Your task to perform on an android device: Open network settings Image 0: 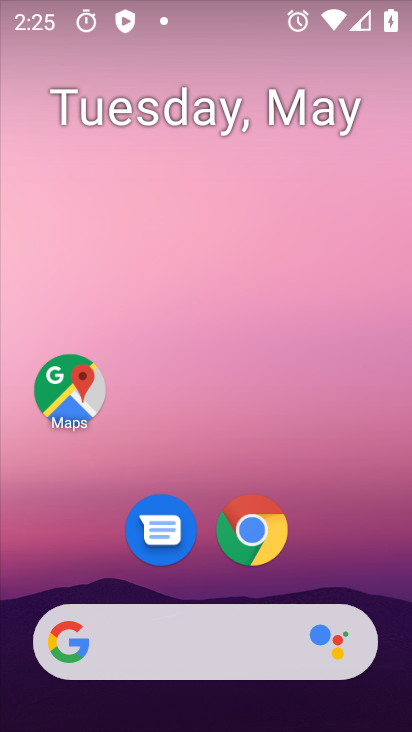
Step 0: drag from (218, 583) to (214, 9)
Your task to perform on an android device: Open network settings Image 1: 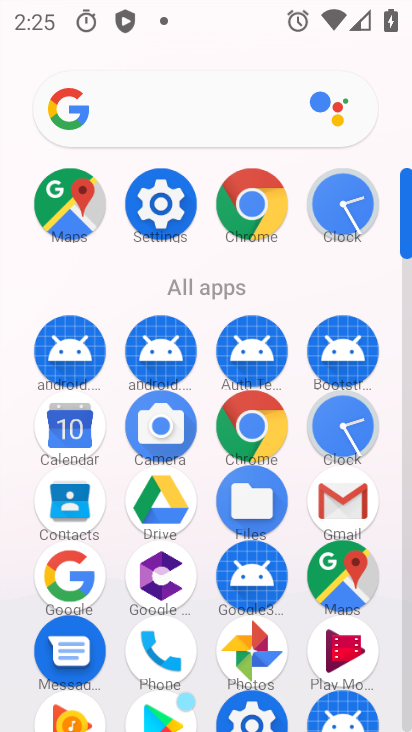
Step 1: click (150, 217)
Your task to perform on an android device: Open network settings Image 2: 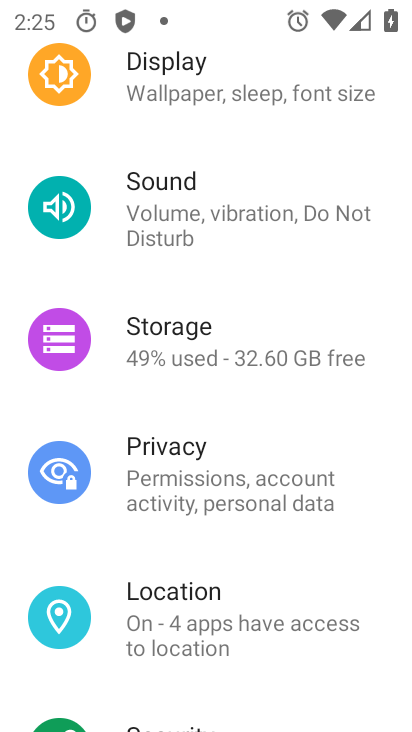
Step 2: drag from (208, 128) to (174, 668)
Your task to perform on an android device: Open network settings Image 3: 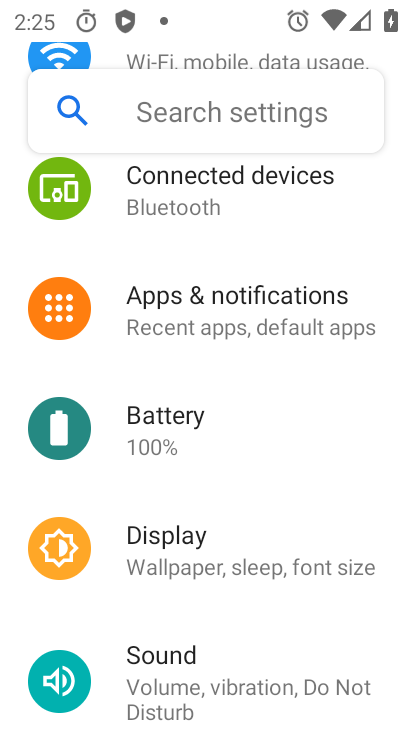
Step 3: drag from (196, 268) to (197, 649)
Your task to perform on an android device: Open network settings Image 4: 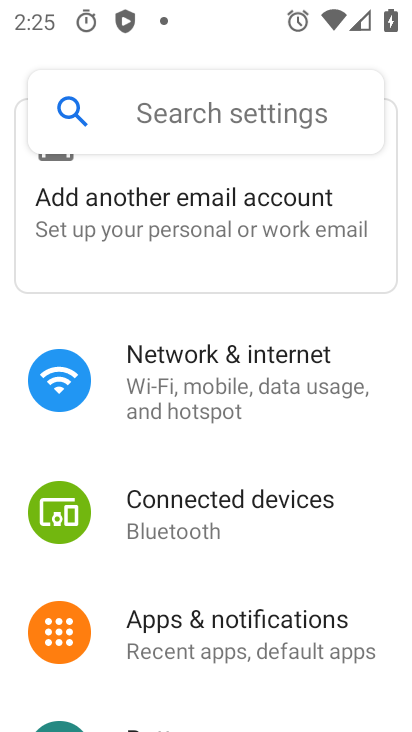
Step 4: click (243, 378)
Your task to perform on an android device: Open network settings Image 5: 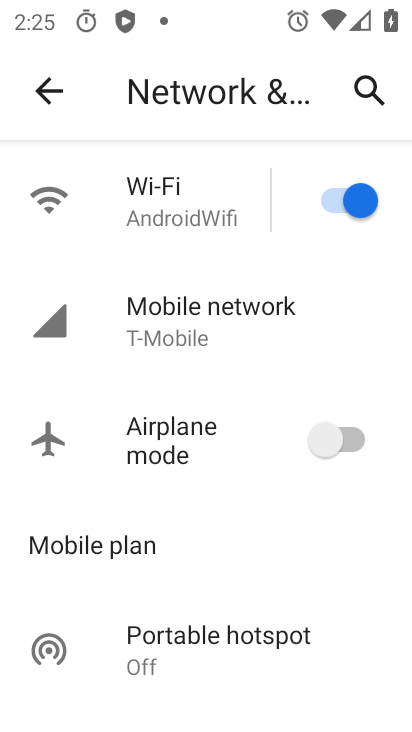
Step 5: click (279, 319)
Your task to perform on an android device: Open network settings Image 6: 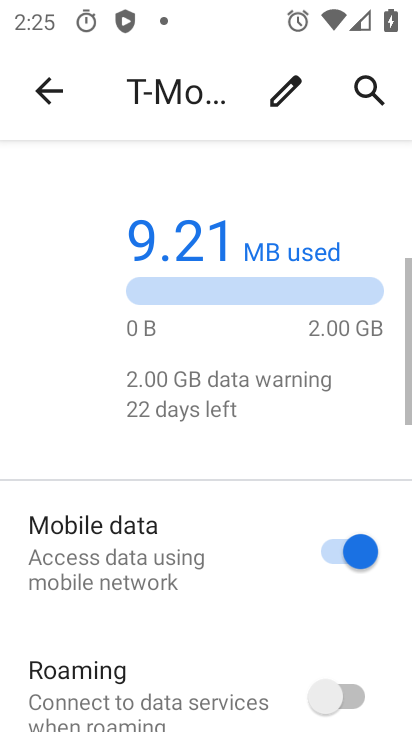
Step 6: task complete